Your task to perform on an android device: open wifi settings Image 0: 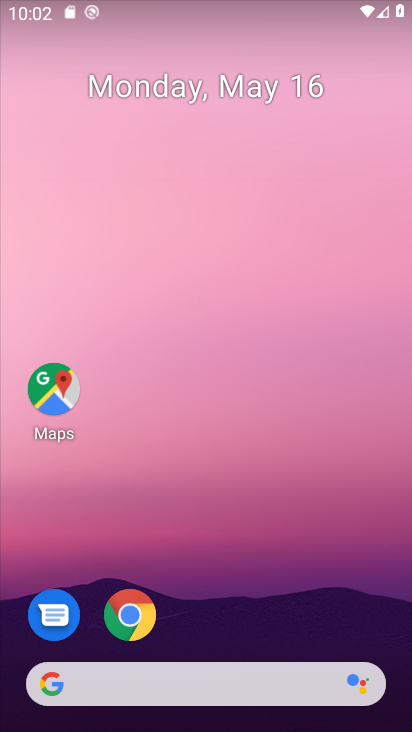
Step 0: drag from (233, 404) to (198, 37)
Your task to perform on an android device: open wifi settings Image 1: 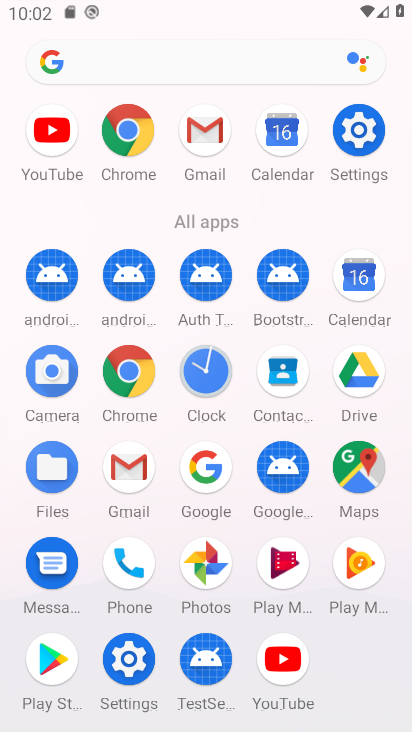
Step 1: click (127, 657)
Your task to perform on an android device: open wifi settings Image 2: 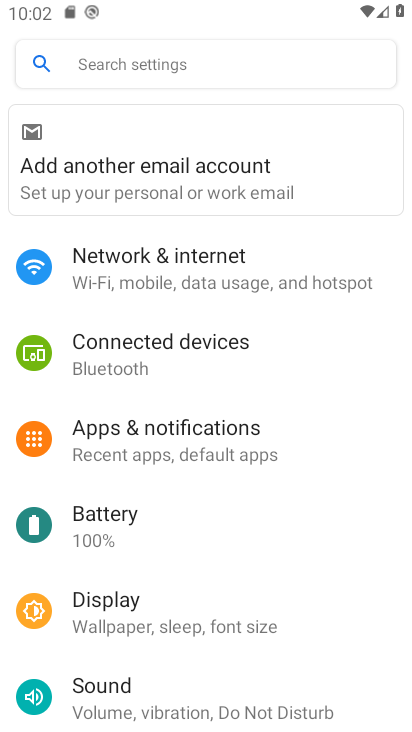
Step 2: click (237, 267)
Your task to perform on an android device: open wifi settings Image 3: 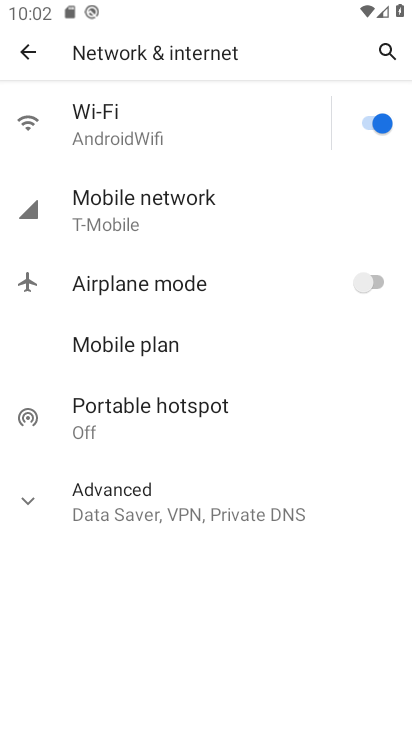
Step 3: click (156, 110)
Your task to perform on an android device: open wifi settings Image 4: 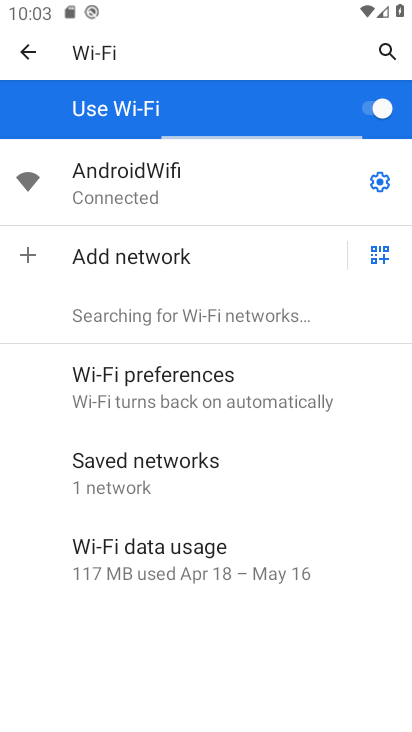
Step 4: task complete